Your task to perform on an android device: toggle pop-ups in chrome Image 0: 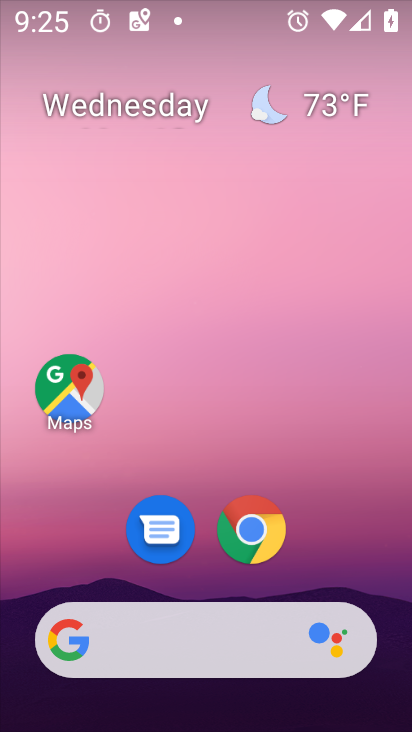
Step 0: drag from (376, 562) to (378, 229)
Your task to perform on an android device: toggle pop-ups in chrome Image 1: 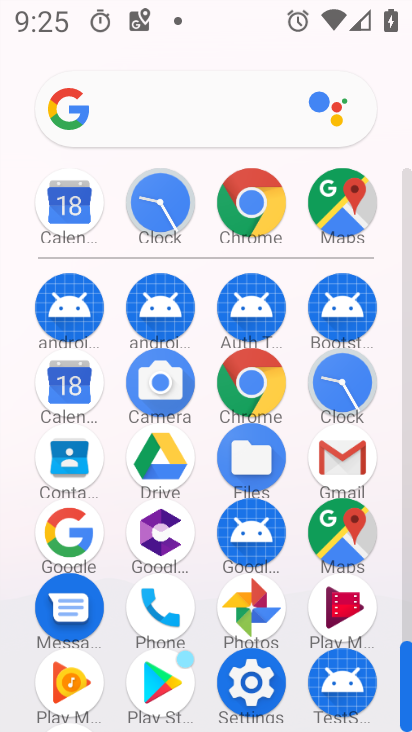
Step 1: click (249, 387)
Your task to perform on an android device: toggle pop-ups in chrome Image 2: 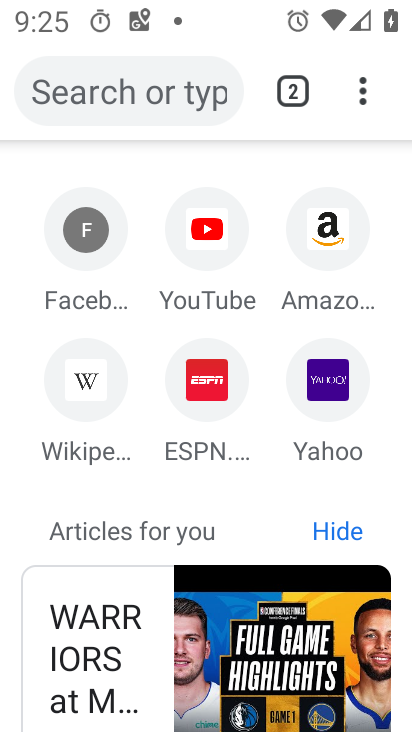
Step 2: click (366, 105)
Your task to perform on an android device: toggle pop-ups in chrome Image 3: 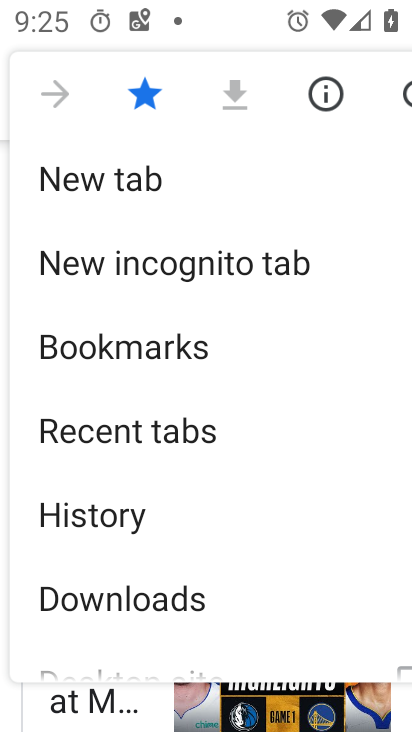
Step 3: drag from (333, 568) to (334, 450)
Your task to perform on an android device: toggle pop-ups in chrome Image 4: 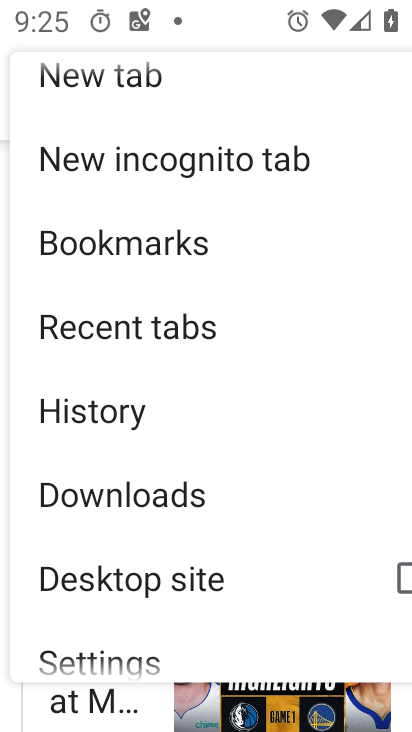
Step 4: drag from (328, 585) to (317, 458)
Your task to perform on an android device: toggle pop-ups in chrome Image 5: 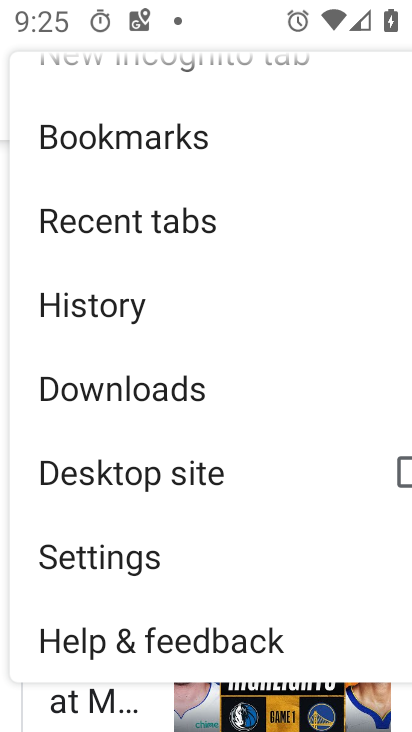
Step 5: drag from (320, 577) to (320, 474)
Your task to perform on an android device: toggle pop-ups in chrome Image 6: 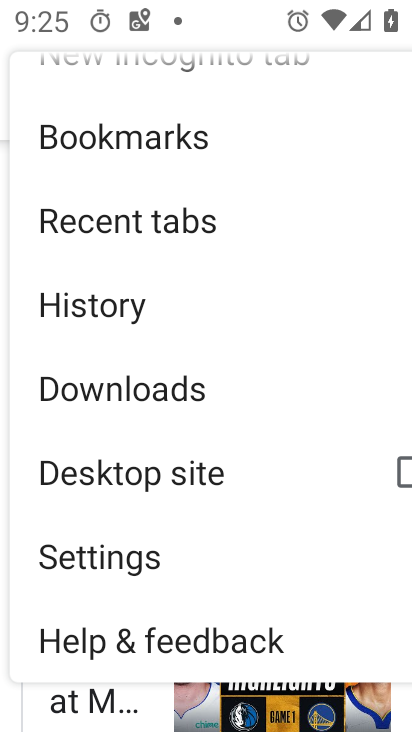
Step 6: drag from (330, 605) to (327, 466)
Your task to perform on an android device: toggle pop-ups in chrome Image 7: 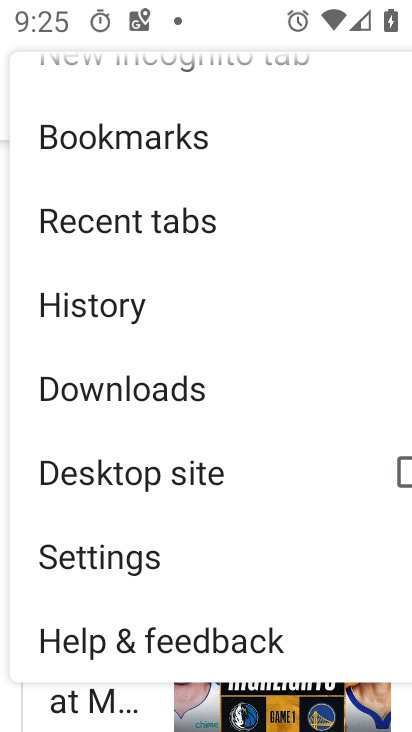
Step 7: click (143, 572)
Your task to perform on an android device: toggle pop-ups in chrome Image 8: 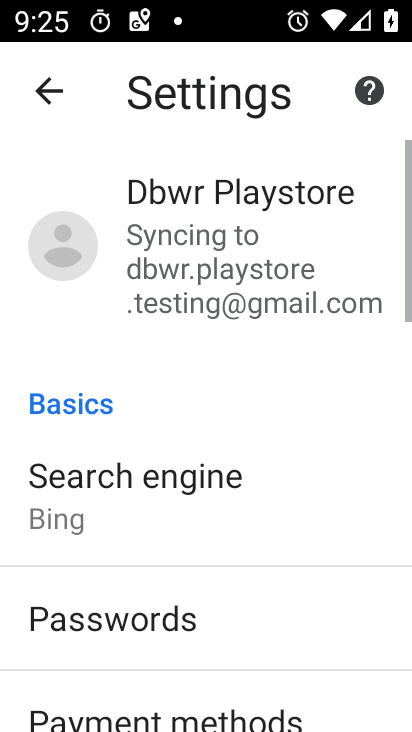
Step 8: drag from (323, 623) to (321, 518)
Your task to perform on an android device: toggle pop-ups in chrome Image 9: 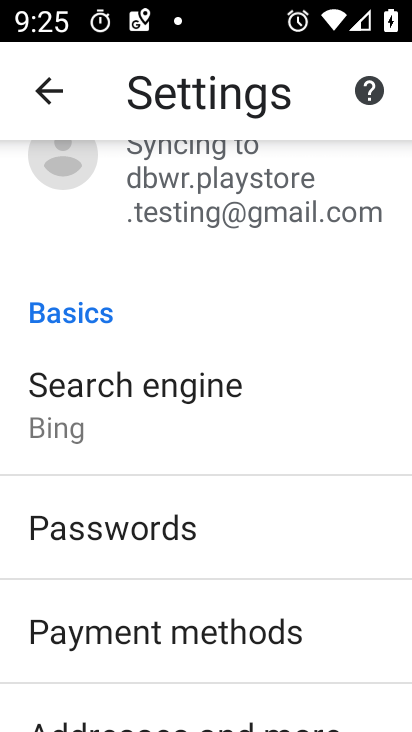
Step 9: drag from (317, 643) to (326, 504)
Your task to perform on an android device: toggle pop-ups in chrome Image 10: 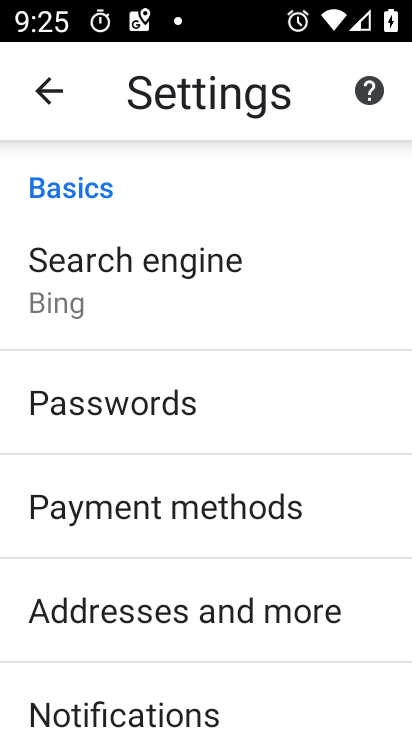
Step 10: drag from (353, 634) to (362, 537)
Your task to perform on an android device: toggle pop-ups in chrome Image 11: 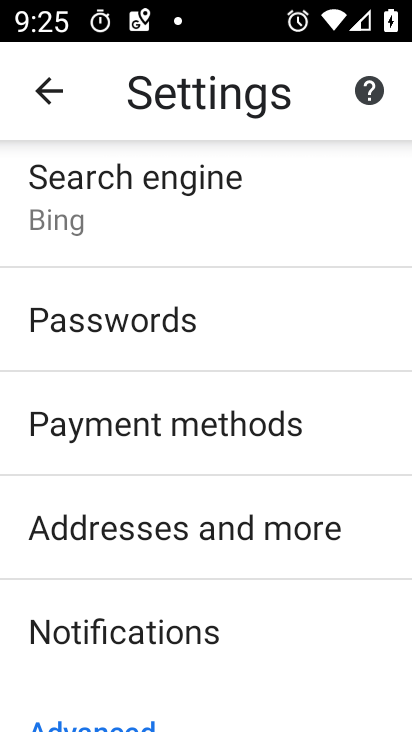
Step 11: drag from (369, 639) to (369, 567)
Your task to perform on an android device: toggle pop-ups in chrome Image 12: 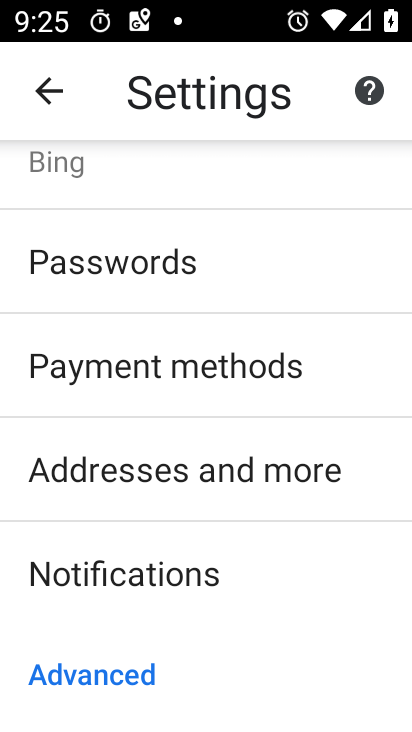
Step 12: drag from (364, 653) to (363, 573)
Your task to perform on an android device: toggle pop-ups in chrome Image 13: 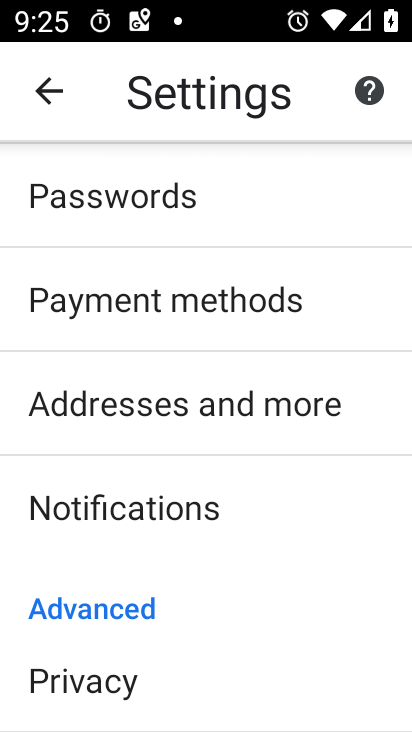
Step 13: drag from (354, 653) to (356, 568)
Your task to perform on an android device: toggle pop-ups in chrome Image 14: 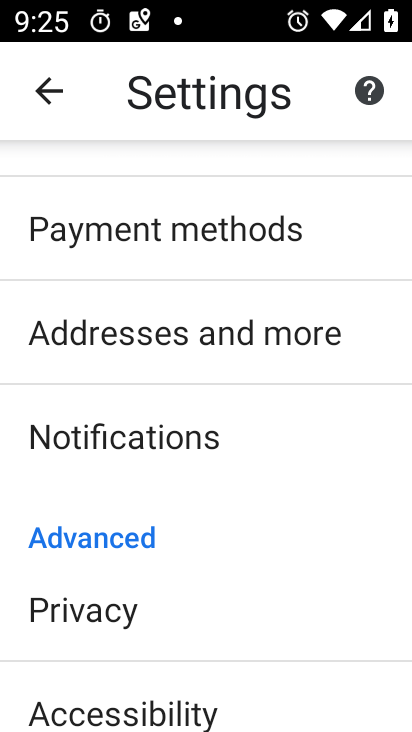
Step 14: drag from (354, 670) to (355, 586)
Your task to perform on an android device: toggle pop-ups in chrome Image 15: 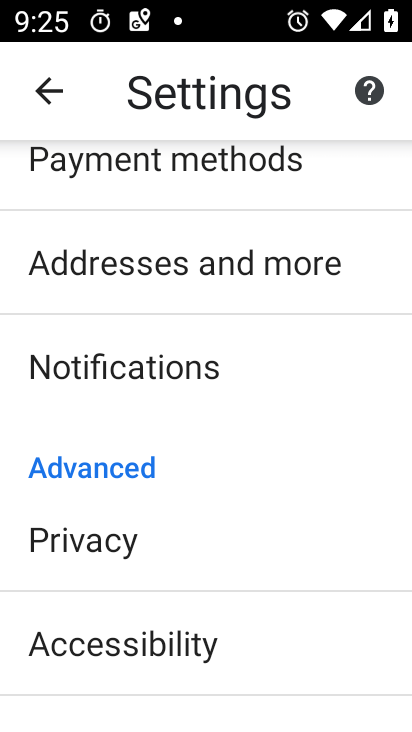
Step 15: drag from (347, 667) to (344, 580)
Your task to perform on an android device: toggle pop-ups in chrome Image 16: 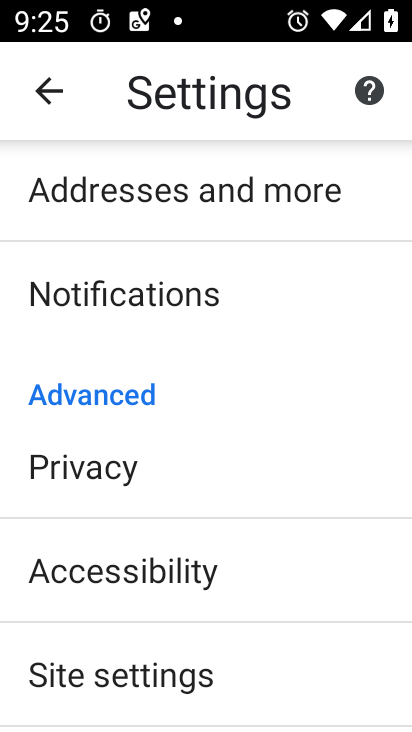
Step 16: drag from (335, 664) to (335, 592)
Your task to perform on an android device: toggle pop-ups in chrome Image 17: 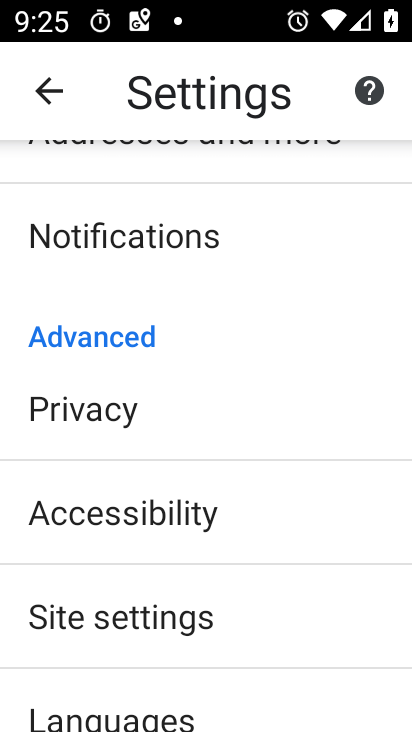
Step 17: drag from (336, 680) to (343, 593)
Your task to perform on an android device: toggle pop-ups in chrome Image 18: 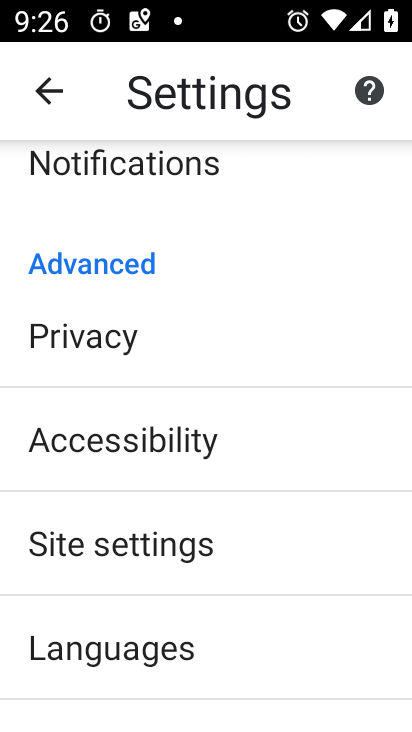
Step 18: drag from (333, 650) to (336, 582)
Your task to perform on an android device: toggle pop-ups in chrome Image 19: 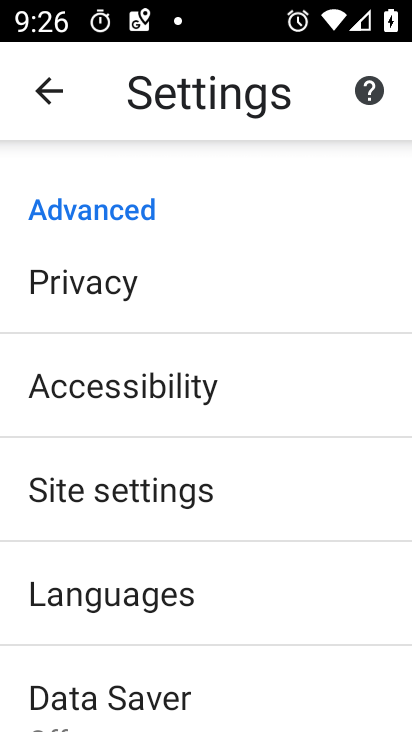
Step 19: click (273, 509)
Your task to perform on an android device: toggle pop-ups in chrome Image 20: 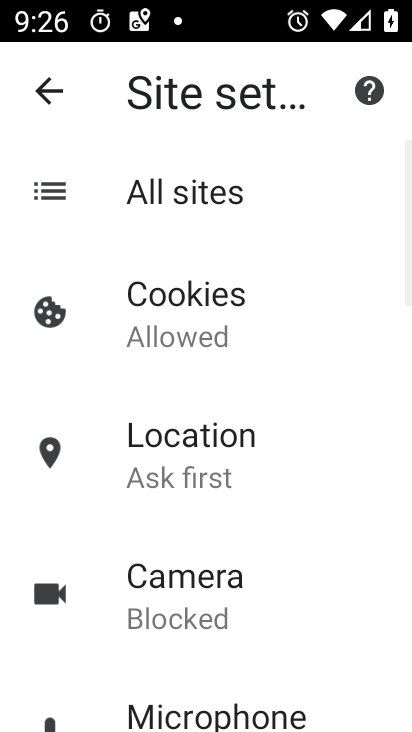
Step 20: drag from (309, 641) to (312, 551)
Your task to perform on an android device: toggle pop-ups in chrome Image 21: 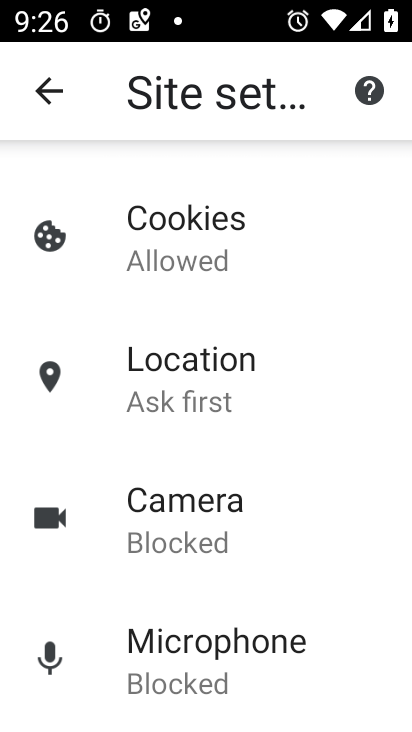
Step 21: drag from (331, 678) to (326, 588)
Your task to perform on an android device: toggle pop-ups in chrome Image 22: 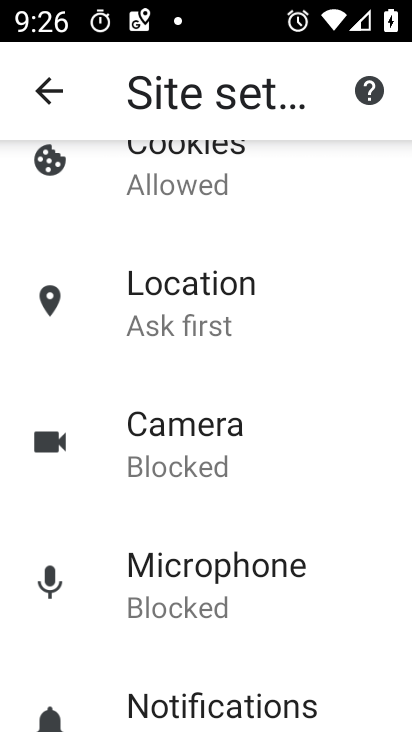
Step 22: drag from (341, 670) to (341, 594)
Your task to perform on an android device: toggle pop-ups in chrome Image 23: 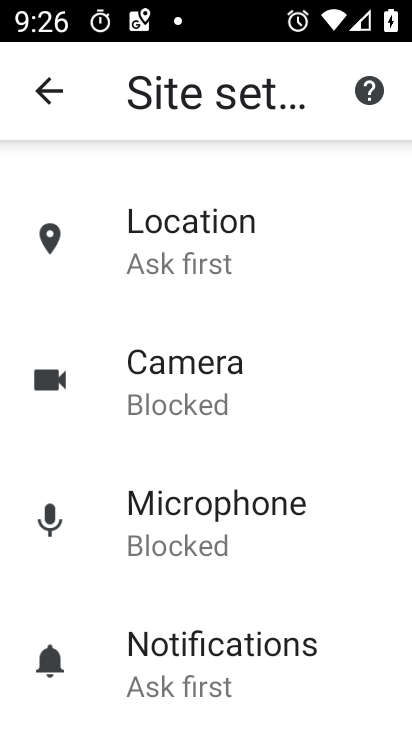
Step 23: drag from (339, 676) to (334, 598)
Your task to perform on an android device: toggle pop-ups in chrome Image 24: 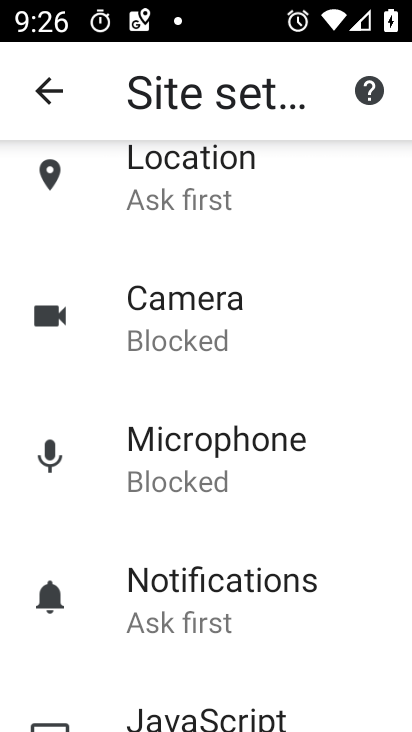
Step 24: drag from (334, 682) to (333, 597)
Your task to perform on an android device: toggle pop-ups in chrome Image 25: 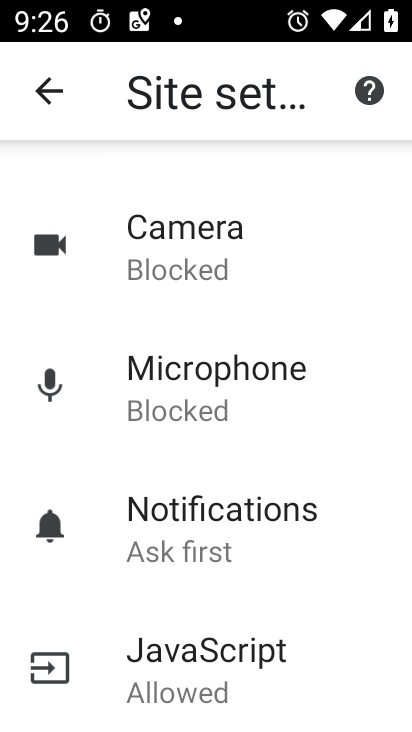
Step 25: drag from (333, 673) to (334, 599)
Your task to perform on an android device: toggle pop-ups in chrome Image 26: 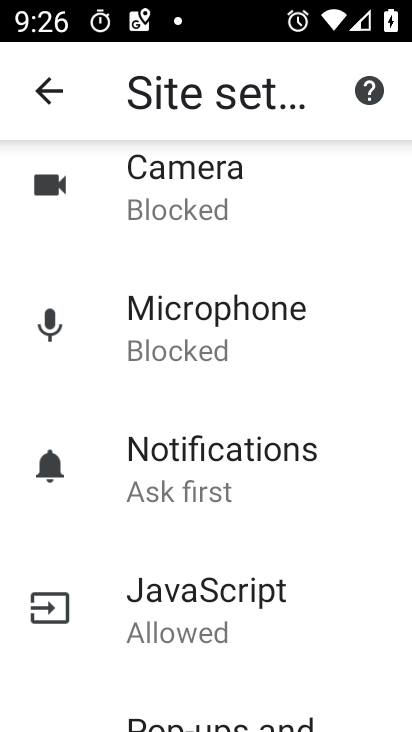
Step 26: drag from (335, 658) to (344, 592)
Your task to perform on an android device: toggle pop-ups in chrome Image 27: 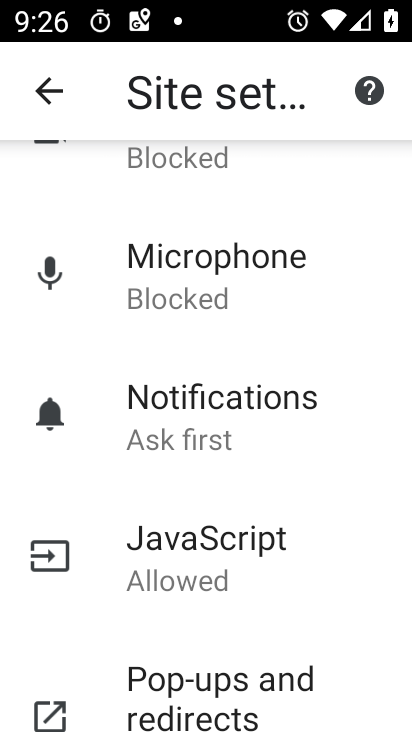
Step 27: drag from (362, 675) to (352, 596)
Your task to perform on an android device: toggle pop-ups in chrome Image 28: 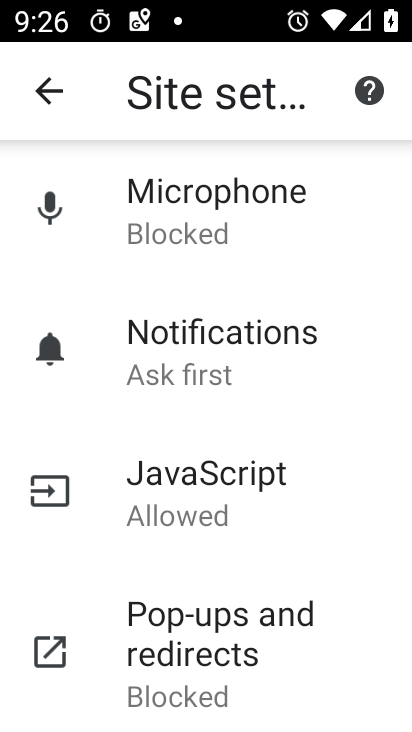
Step 28: drag from (348, 646) to (348, 580)
Your task to perform on an android device: toggle pop-ups in chrome Image 29: 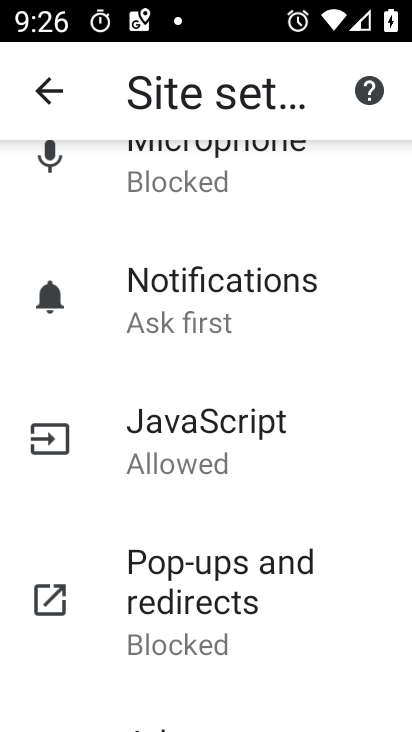
Step 29: drag from (350, 639) to (352, 584)
Your task to perform on an android device: toggle pop-ups in chrome Image 30: 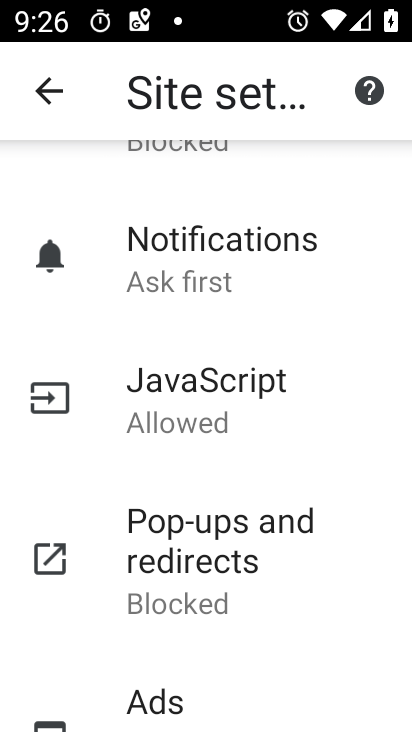
Step 30: click (274, 566)
Your task to perform on an android device: toggle pop-ups in chrome Image 31: 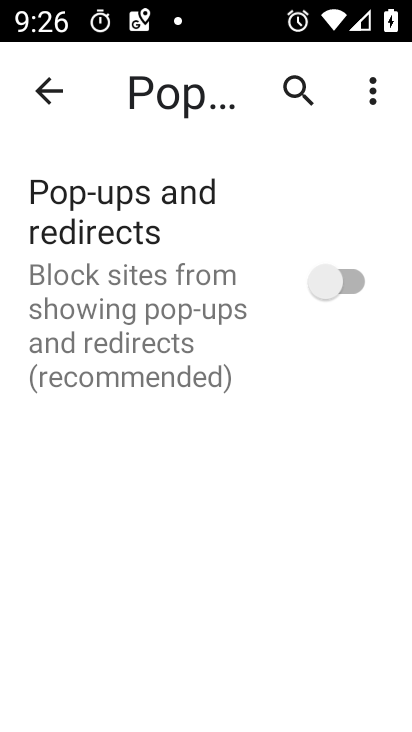
Step 31: click (318, 291)
Your task to perform on an android device: toggle pop-ups in chrome Image 32: 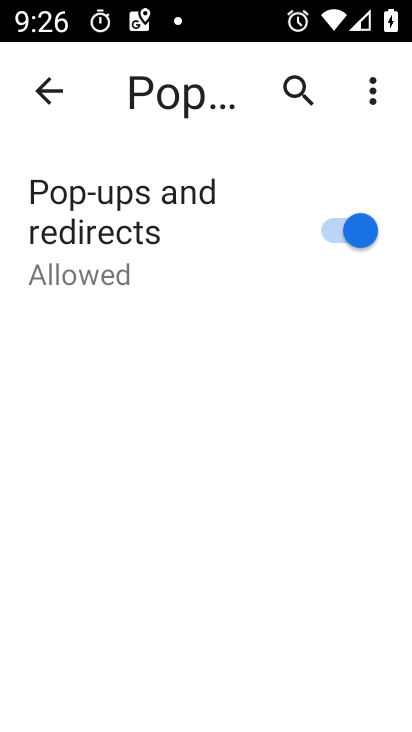
Step 32: task complete